Your task to perform on an android device: Open the web browser Image 0: 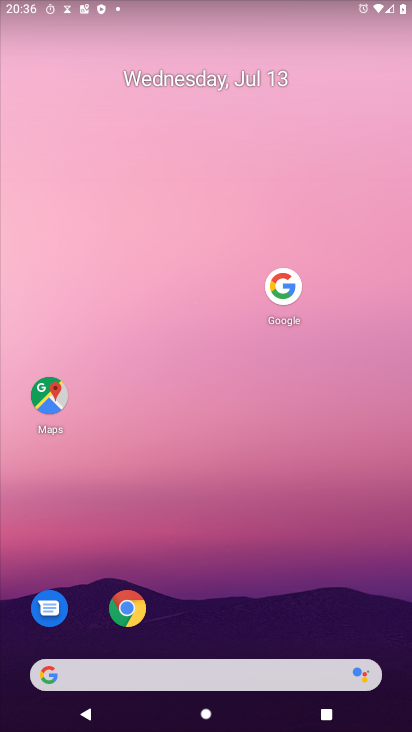
Step 0: click (231, 668)
Your task to perform on an android device: Open the web browser Image 1: 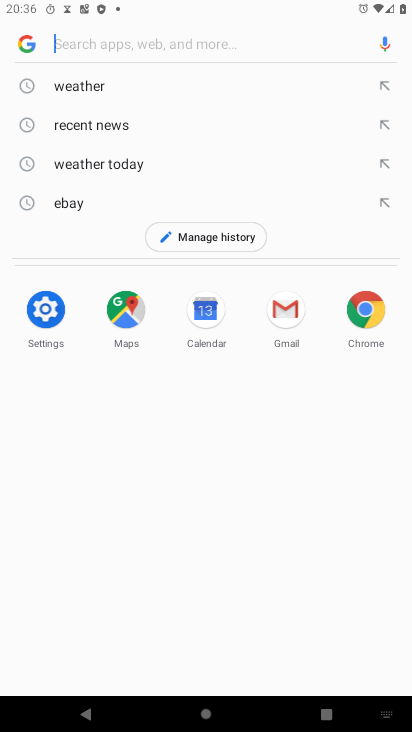
Step 1: task complete